Your task to perform on an android device: Do I have any events today? Image 0: 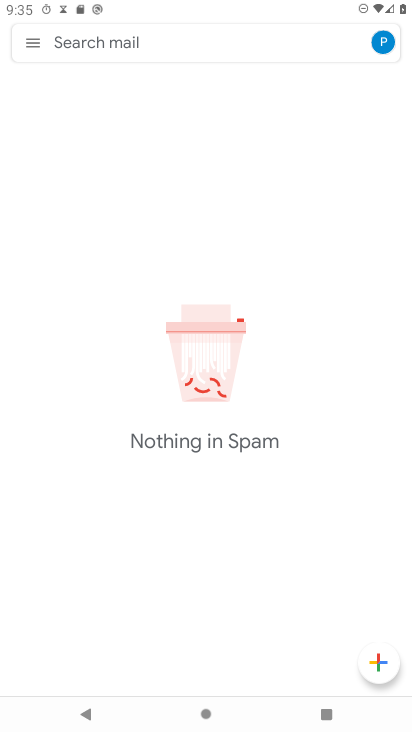
Step 0: press back button
Your task to perform on an android device: Do I have any events today? Image 1: 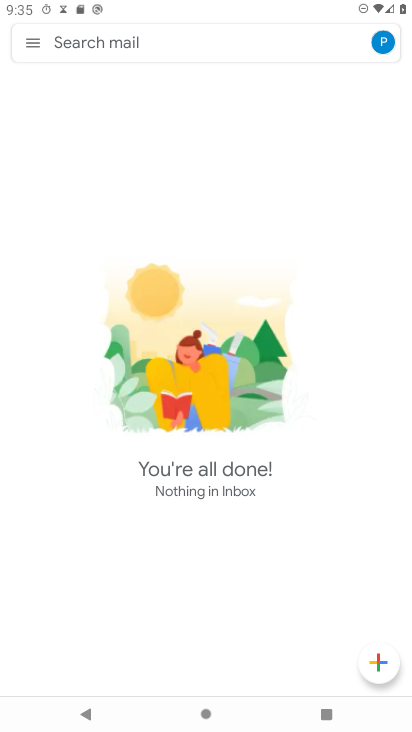
Step 1: click (28, 34)
Your task to perform on an android device: Do I have any events today? Image 2: 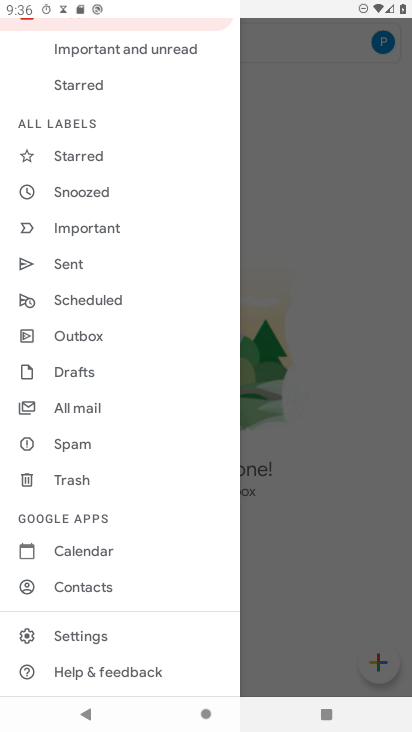
Step 2: click (96, 636)
Your task to perform on an android device: Do I have any events today? Image 3: 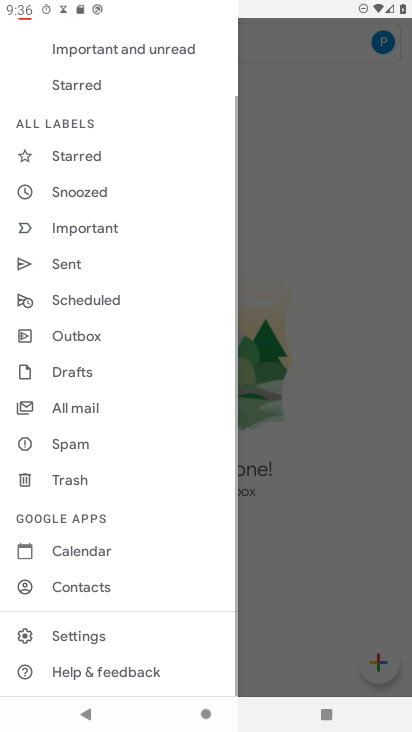
Step 3: click (99, 632)
Your task to perform on an android device: Do I have any events today? Image 4: 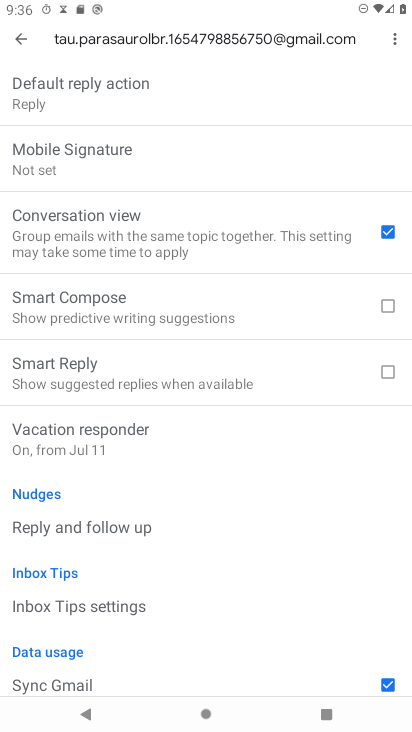
Step 4: drag from (132, 622) to (124, 352)
Your task to perform on an android device: Do I have any events today? Image 5: 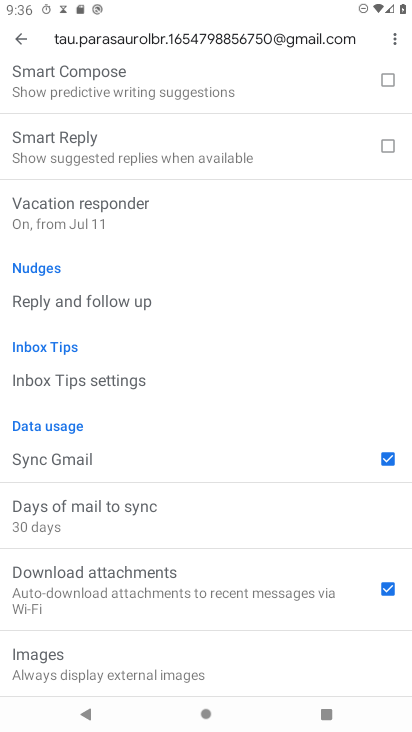
Step 5: drag from (55, 165) to (79, 352)
Your task to perform on an android device: Do I have any events today? Image 6: 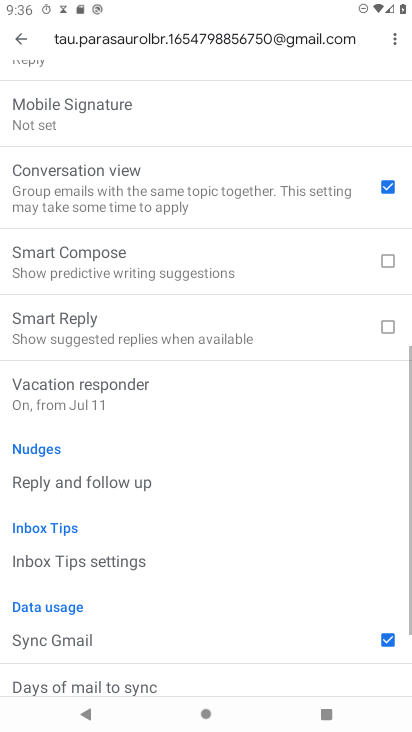
Step 6: click (18, 31)
Your task to perform on an android device: Do I have any events today? Image 7: 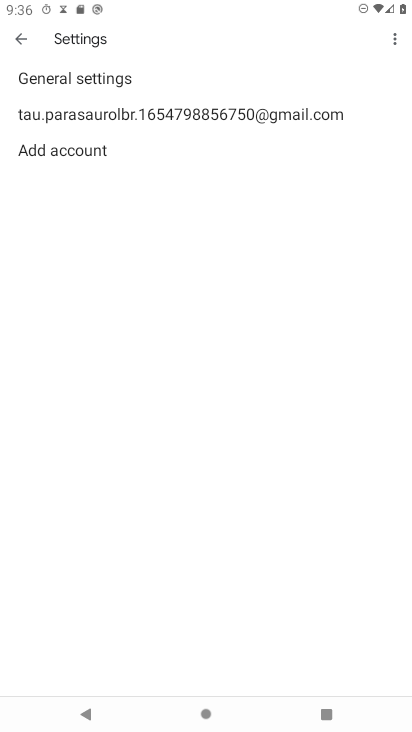
Step 7: click (7, 24)
Your task to perform on an android device: Do I have any events today? Image 8: 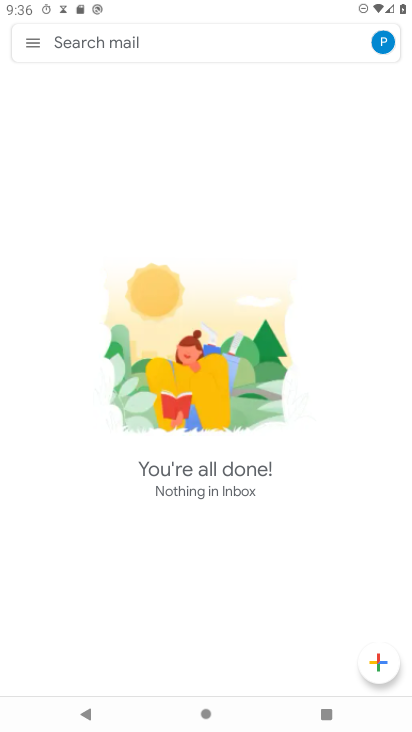
Step 8: press back button
Your task to perform on an android device: Do I have any events today? Image 9: 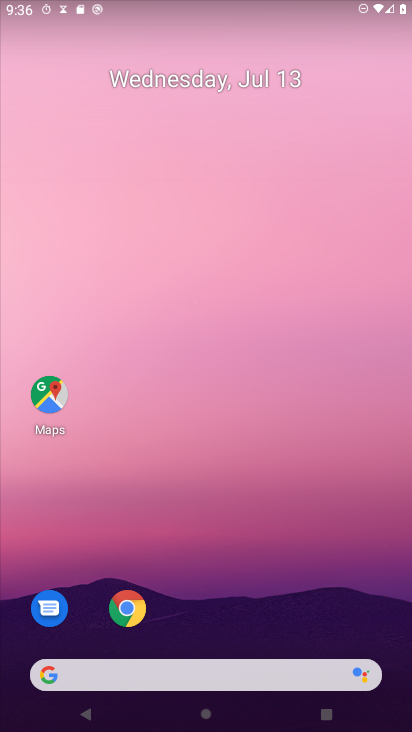
Step 9: drag from (251, 498) to (200, 146)
Your task to perform on an android device: Do I have any events today? Image 10: 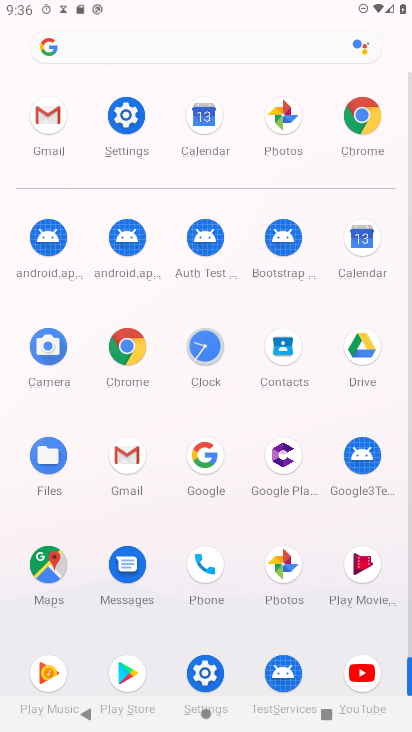
Step 10: click (361, 233)
Your task to perform on an android device: Do I have any events today? Image 11: 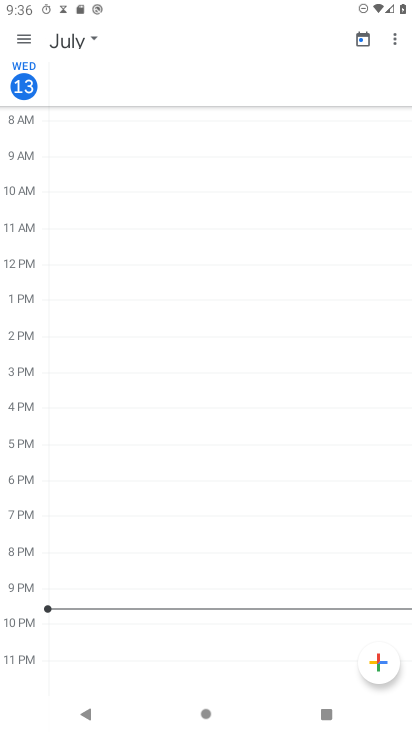
Step 11: task complete